Your task to perform on an android device: Do I have any events today? Image 0: 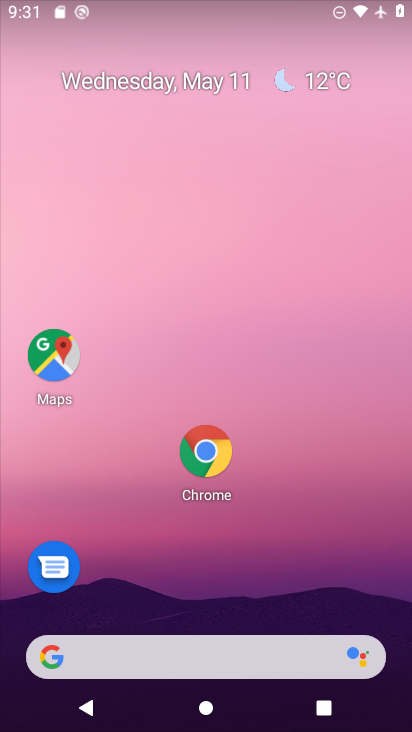
Step 0: drag from (139, 594) to (284, 148)
Your task to perform on an android device: Do I have any events today? Image 1: 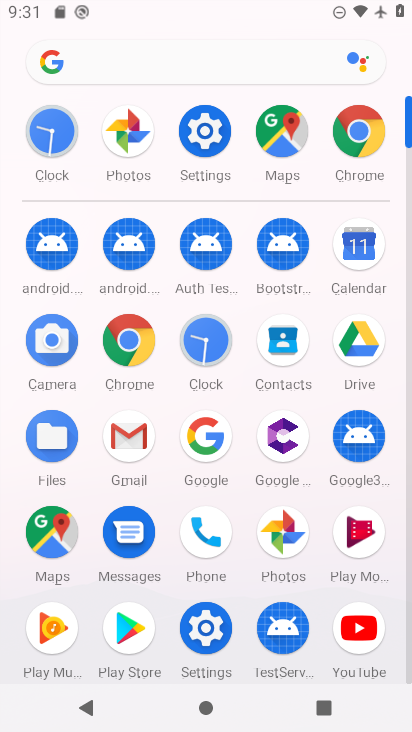
Step 1: click (352, 257)
Your task to perform on an android device: Do I have any events today? Image 2: 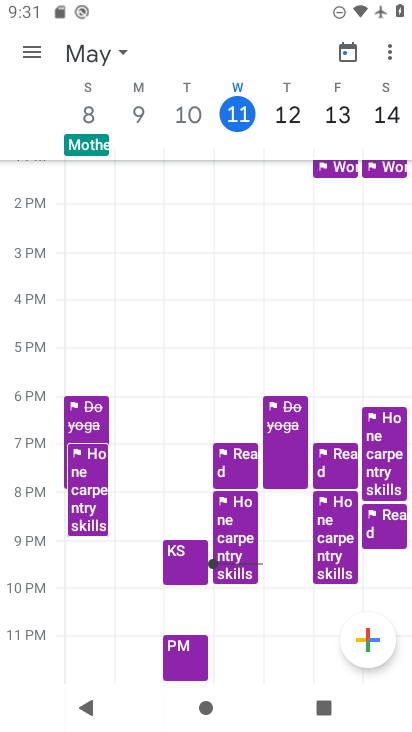
Step 2: click (92, 55)
Your task to perform on an android device: Do I have any events today? Image 3: 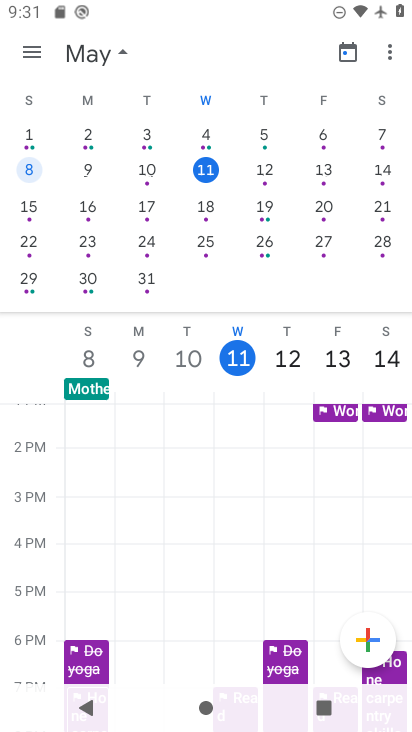
Step 3: click (209, 177)
Your task to perform on an android device: Do I have any events today? Image 4: 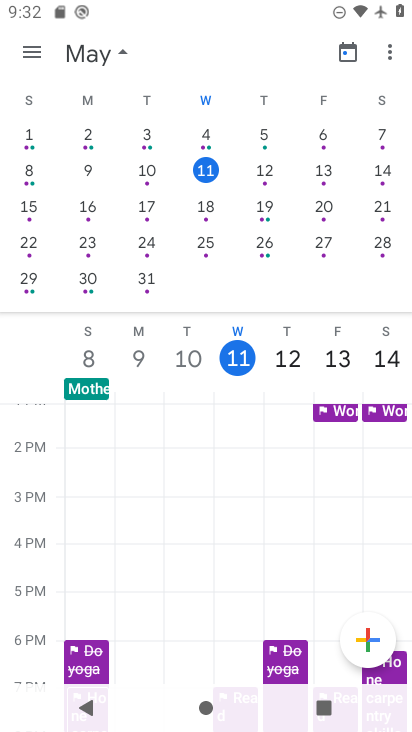
Step 4: click (35, 48)
Your task to perform on an android device: Do I have any events today? Image 5: 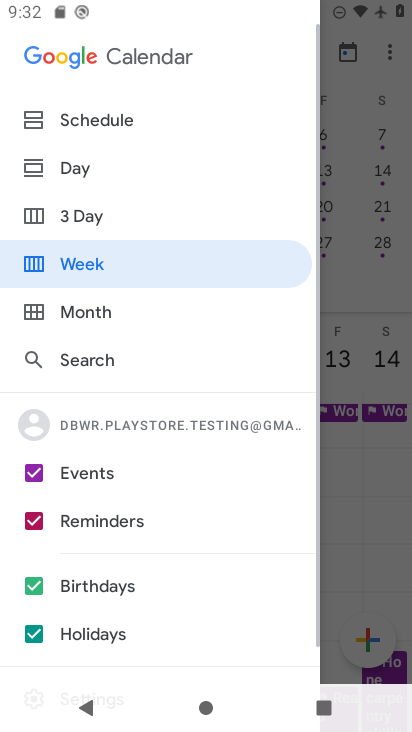
Step 5: click (88, 121)
Your task to perform on an android device: Do I have any events today? Image 6: 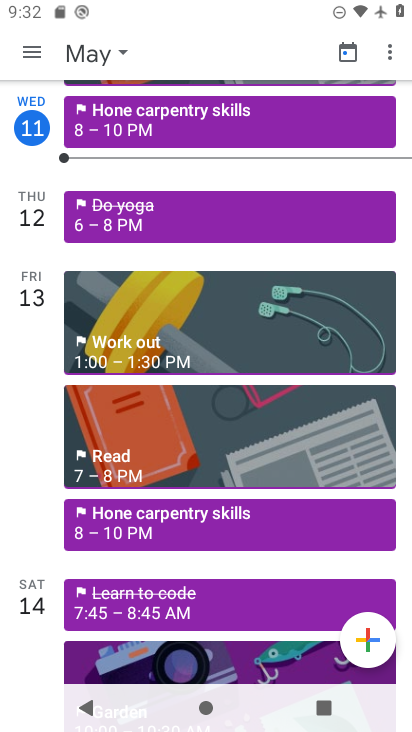
Step 6: click (121, 134)
Your task to perform on an android device: Do I have any events today? Image 7: 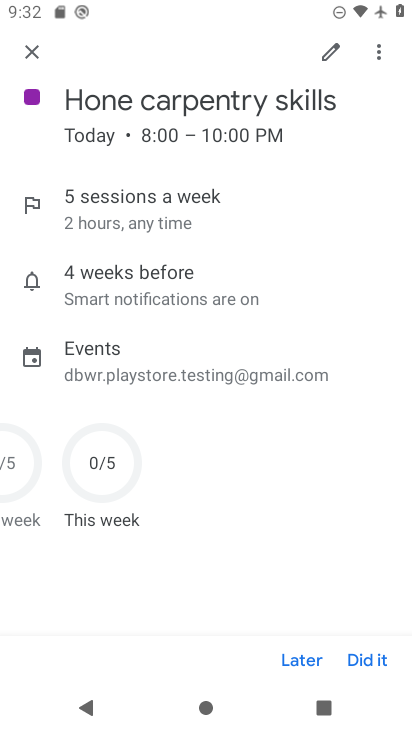
Step 7: task complete